Your task to perform on an android device: turn on javascript in the chrome app Image 0: 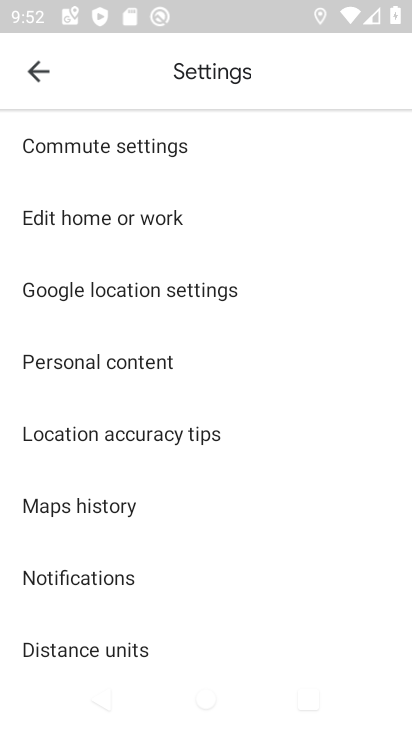
Step 0: press home button
Your task to perform on an android device: turn on javascript in the chrome app Image 1: 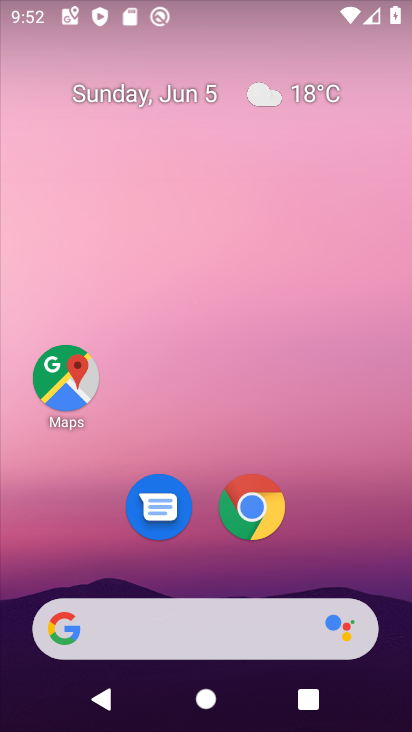
Step 1: click (249, 516)
Your task to perform on an android device: turn on javascript in the chrome app Image 2: 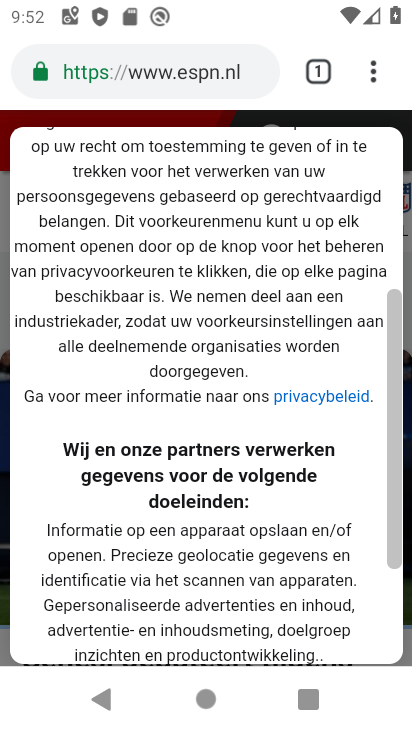
Step 2: click (366, 74)
Your task to perform on an android device: turn on javascript in the chrome app Image 3: 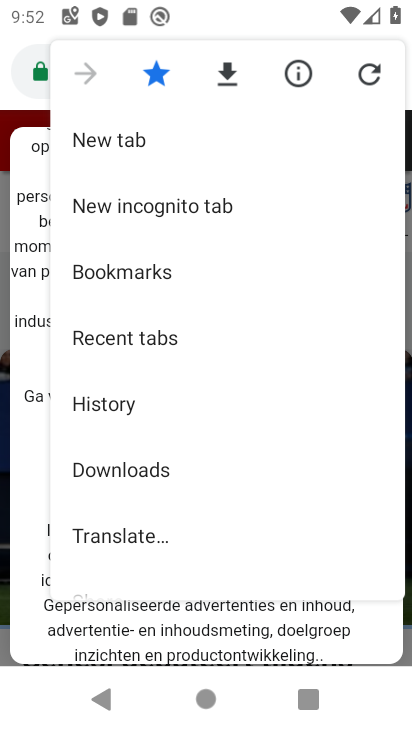
Step 3: drag from (177, 527) to (309, 6)
Your task to perform on an android device: turn on javascript in the chrome app Image 4: 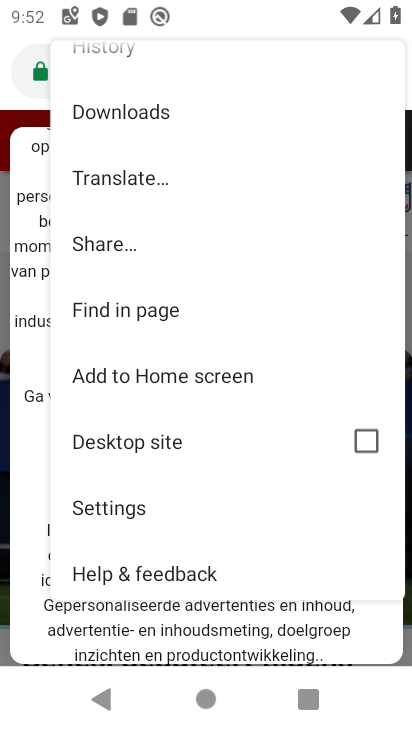
Step 4: click (127, 513)
Your task to perform on an android device: turn on javascript in the chrome app Image 5: 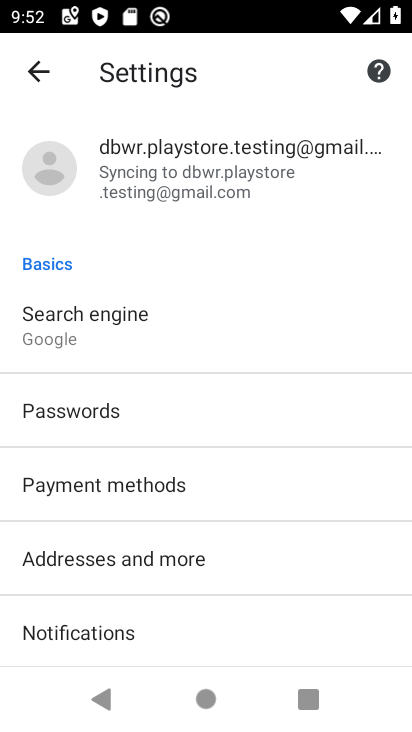
Step 5: drag from (117, 540) to (176, 333)
Your task to perform on an android device: turn on javascript in the chrome app Image 6: 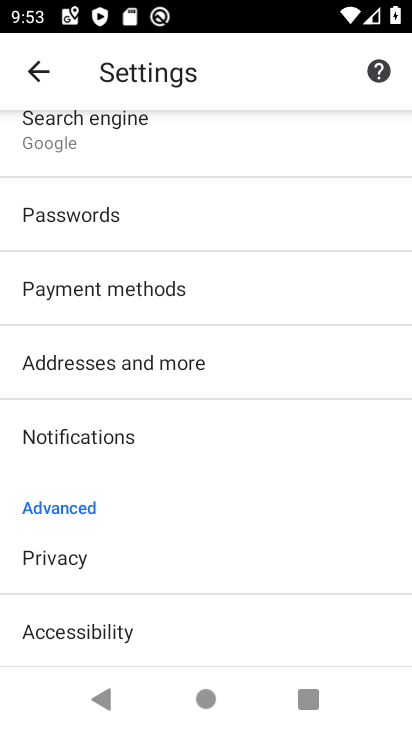
Step 6: drag from (161, 527) to (231, 78)
Your task to perform on an android device: turn on javascript in the chrome app Image 7: 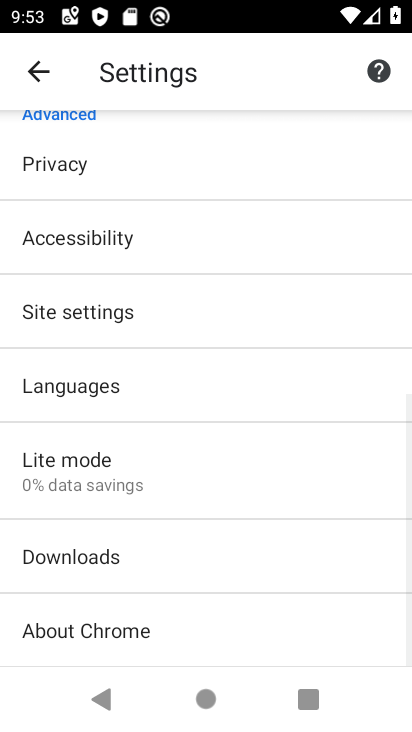
Step 7: click (86, 316)
Your task to perform on an android device: turn on javascript in the chrome app Image 8: 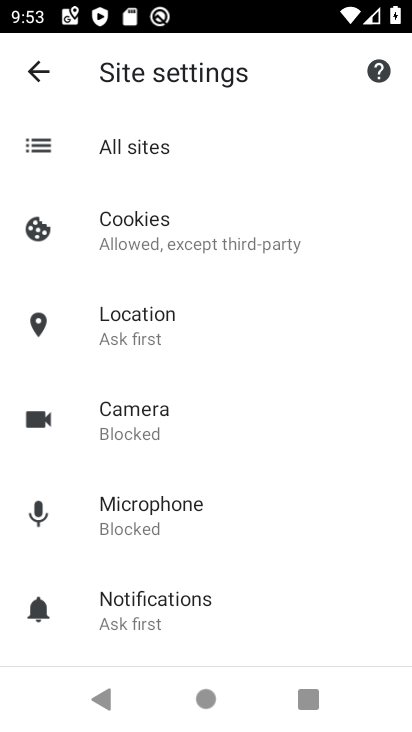
Step 8: drag from (143, 501) to (191, 273)
Your task to perform on an android device: turn on javascript in the chrome app Image 9: 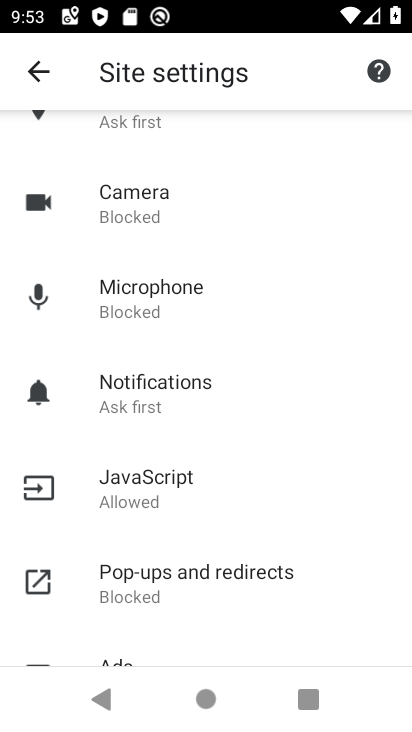
Step 9: click (164, 476)
Your task to perform on an android device: turn on javascript in the chrome app Image 10: 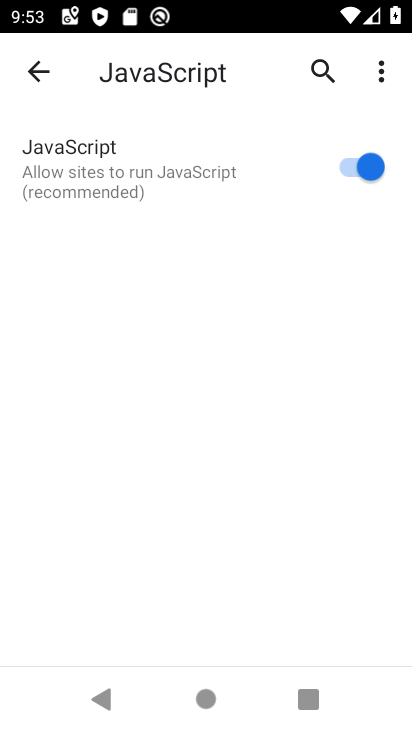
Step 10: task complete